Your task to perform on an android device: Open Chrome and go to settings Image 0: 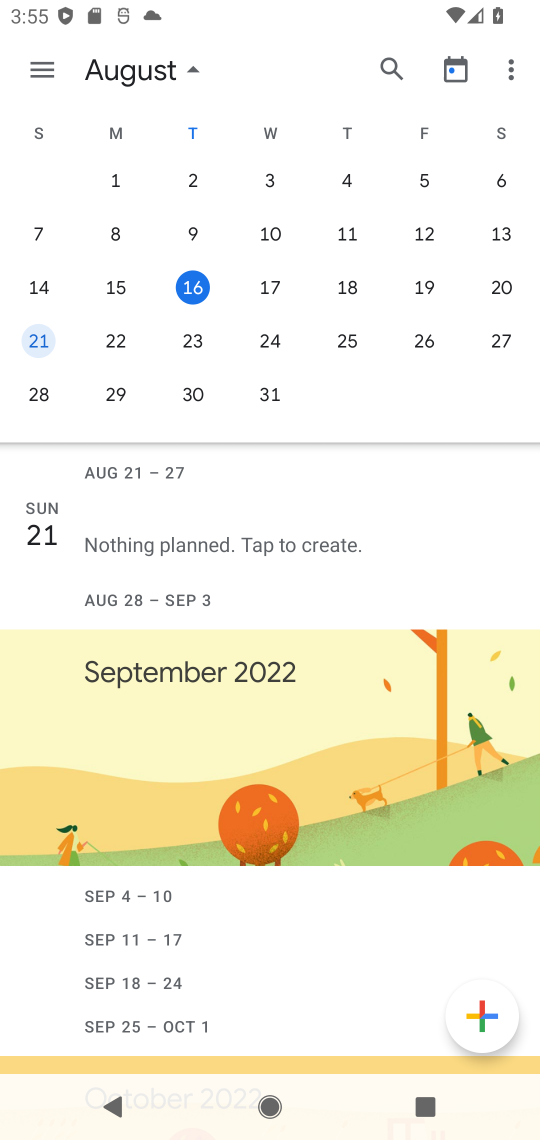
Step 0: press home button
Your task to perform on an android device: Open Chrome and go to settings Image 1: 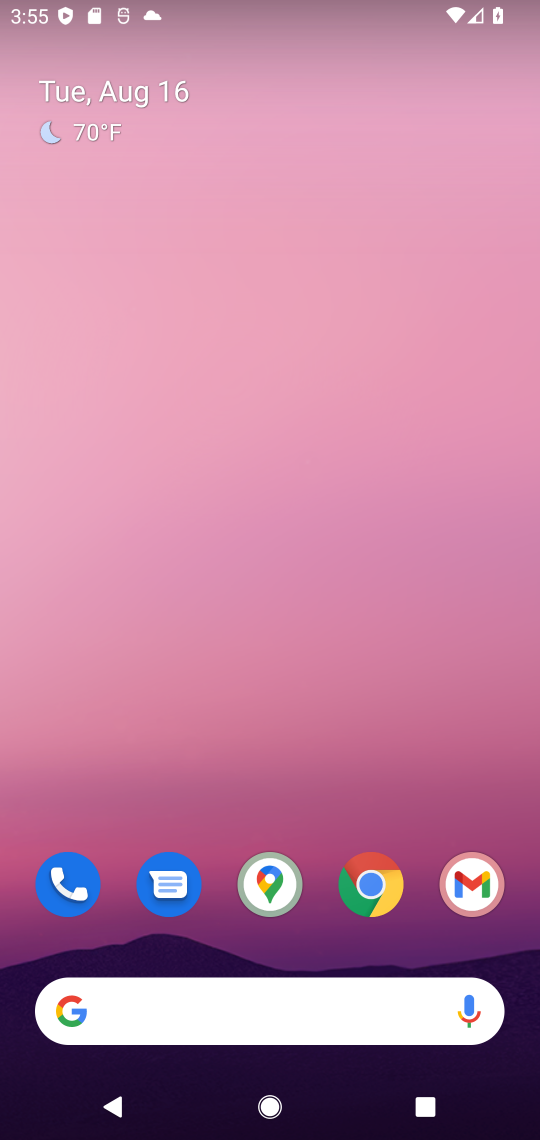
Step 1: click (376, 876)
Your task to perform on an android device: Open Chrome and go to settings Image 2: 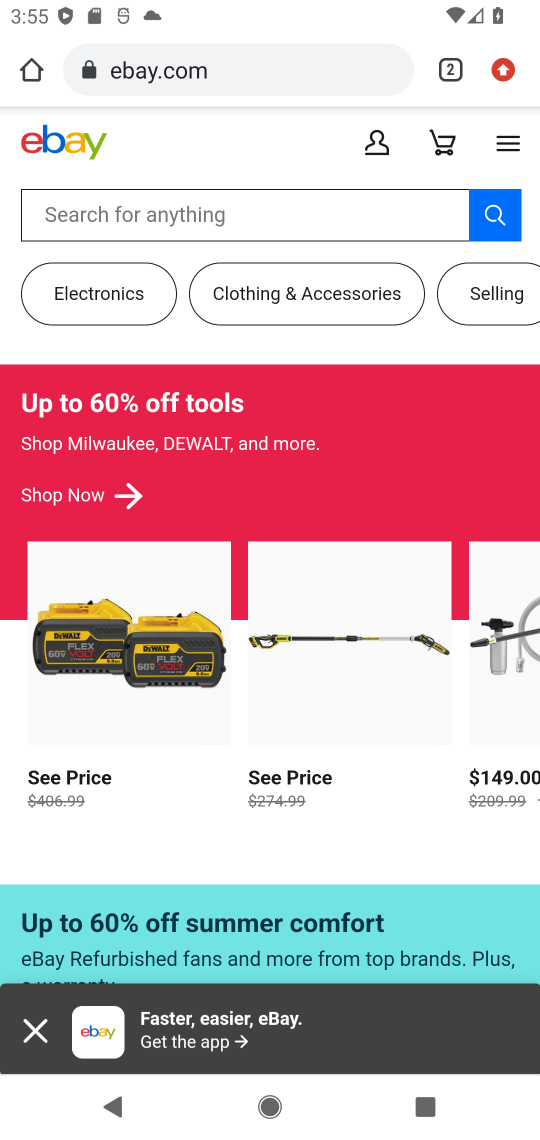
Step 2: click (505, 65)
Your task to perform on an android device: Open Chrome and go to settings Image 3: 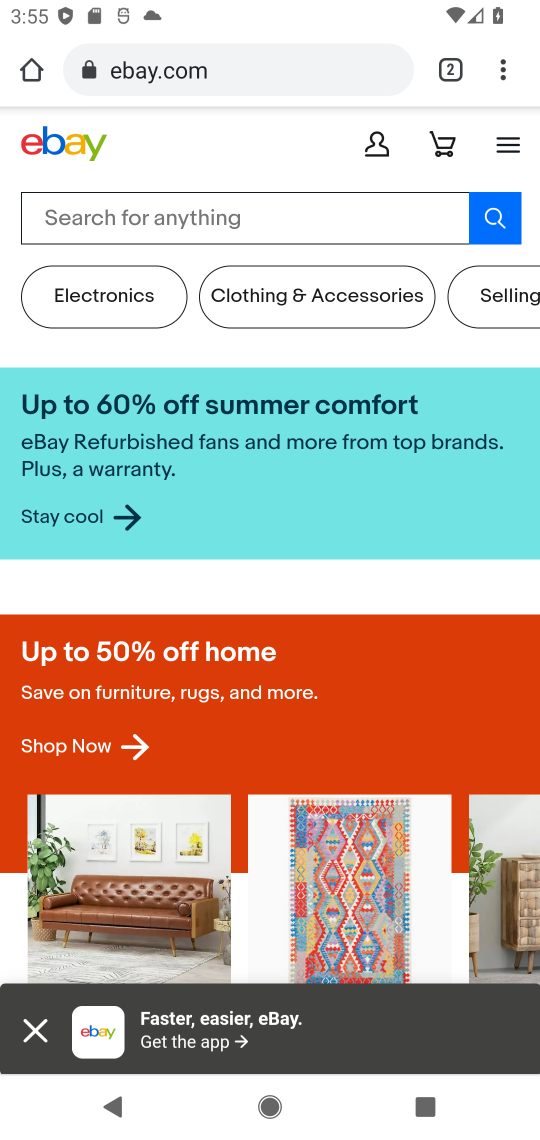
Step 3: click (494, 65)
Your task to perform on an android device: Open Chrome and go to settings Image 4: 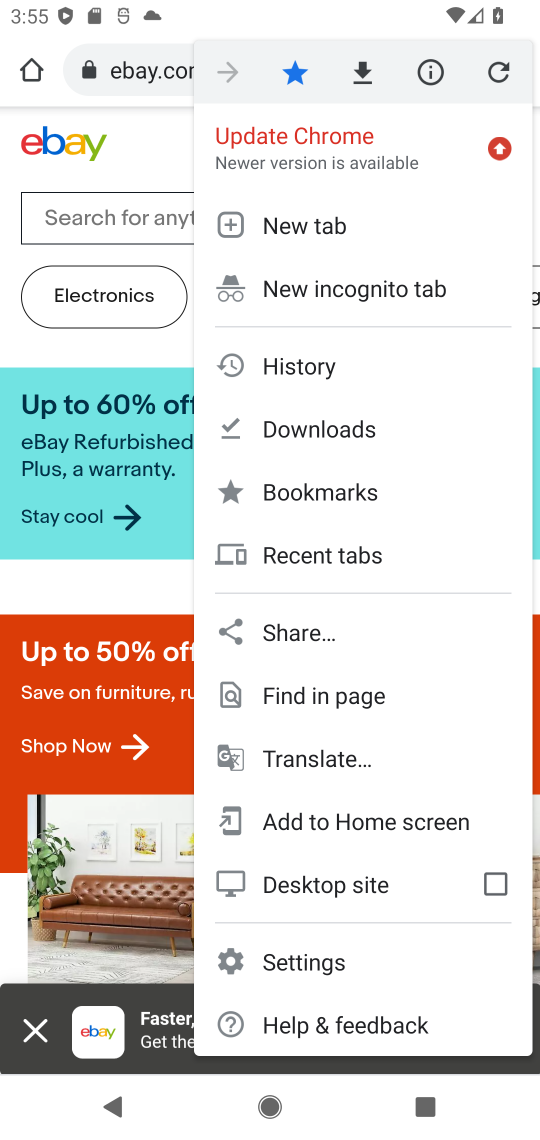
Step 4: click (318, 949)
Your task to perform on an android device: Open Chrome and go to settings Image 5: 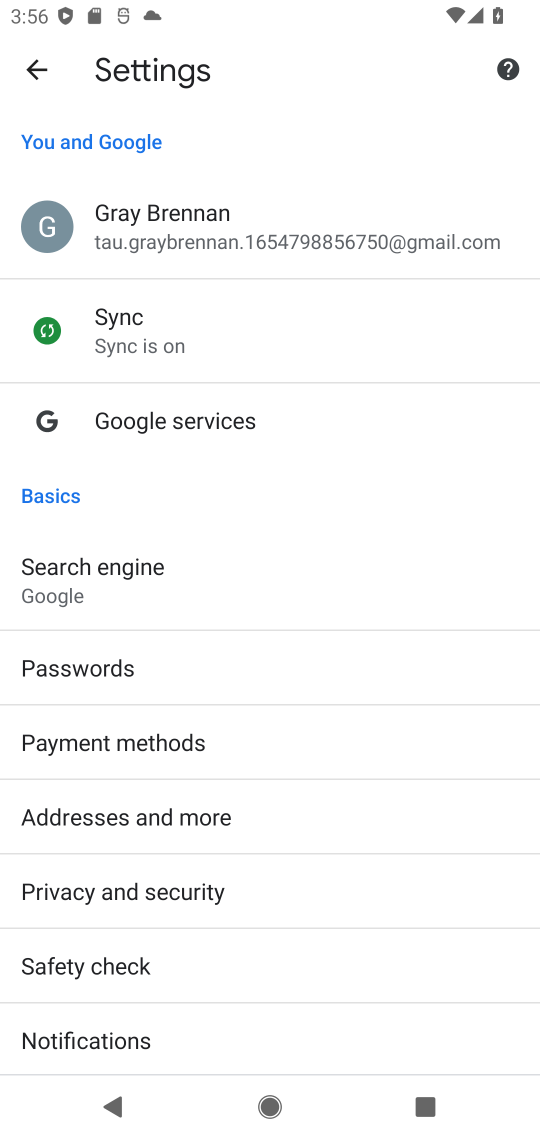
Step 5: task complete